Your task to perform on an android device: empty trash in google photos Image 0: 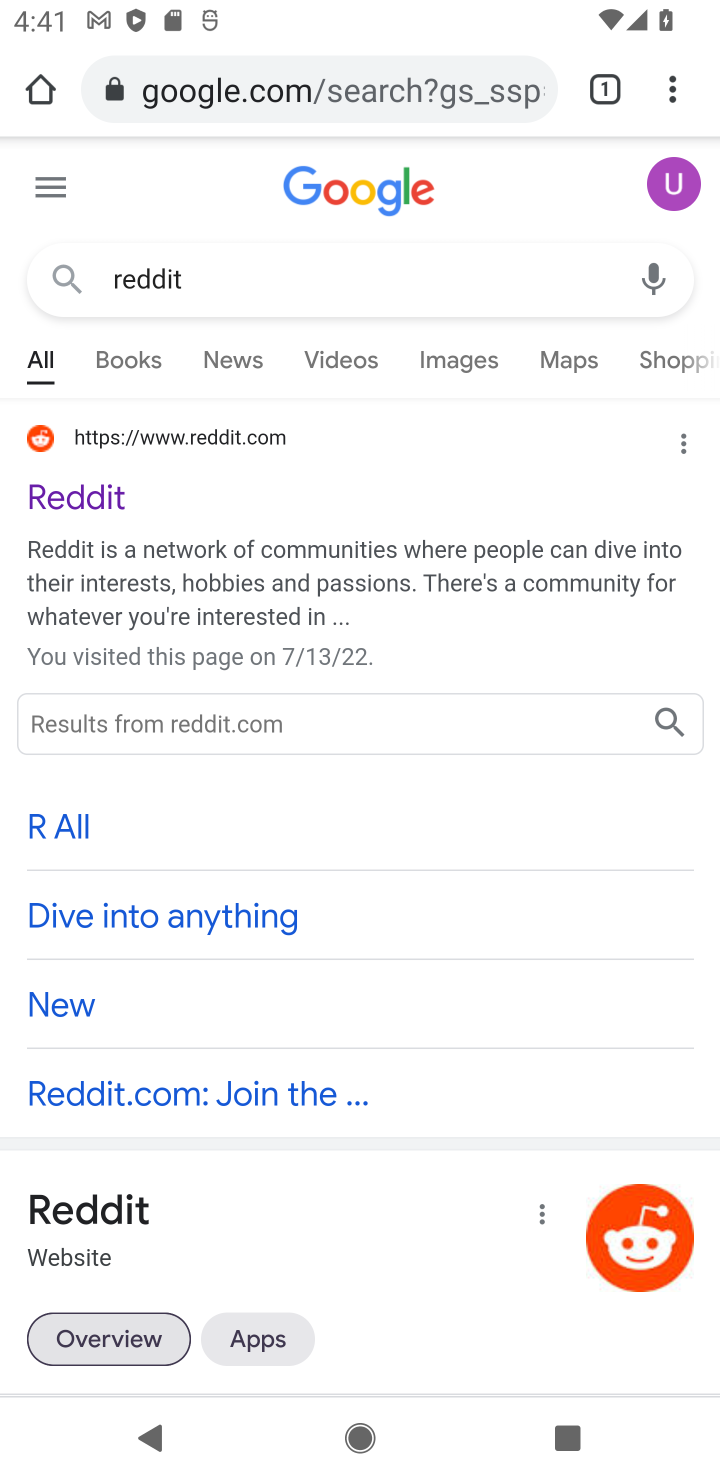
Step 0: task complete